Your task to perform on an android device: add a contact in the contacts app Image 0: 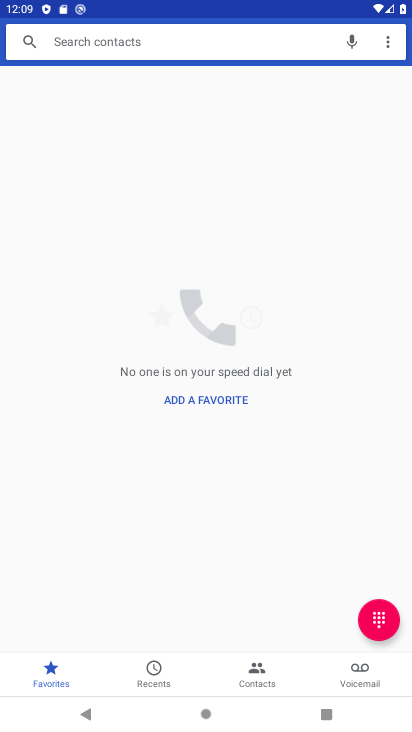
Step 0: press home button
Your task to perform on an android device: add a contact in the contacts app Image 1: 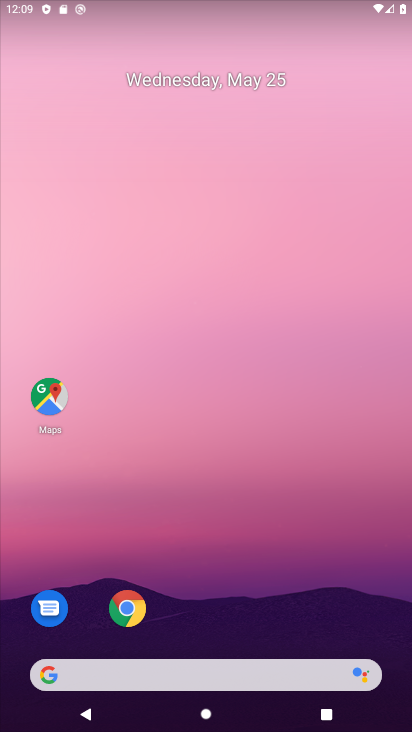
Step 1: drag from (265, 602) to (268, 114)
Your task to perform on an android device: add a contact in the contacts app Image 2: 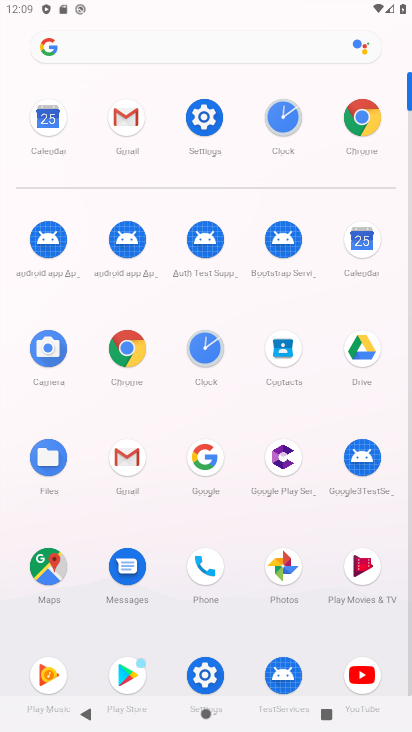
Step 2: click (278, 356)
Your task to perform on an android device: add a contact in the contacts app Image 3: 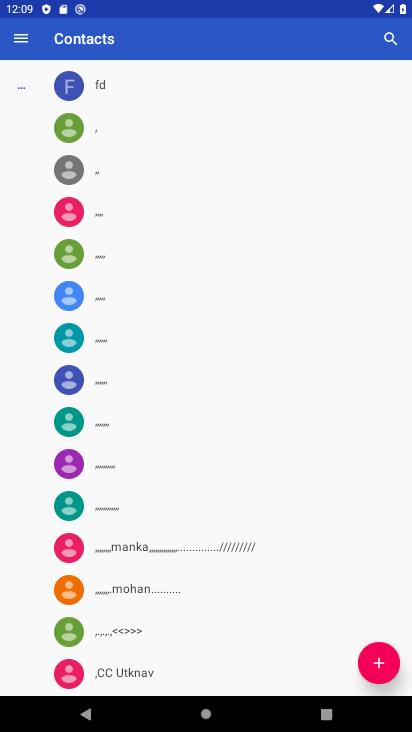
Step 3: click (377, 669)
Your task to perform on an android device: add a contact in the contacts app Image 4: 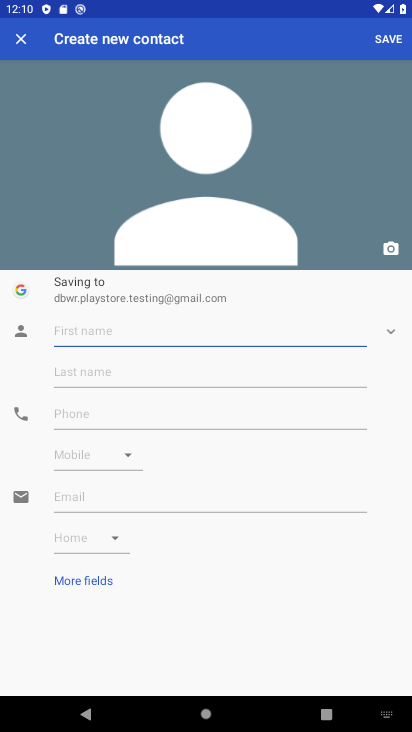
Step 4: type "lkbvk"
Your task to perform on an android device: add a contact in the contacts app Image 5: 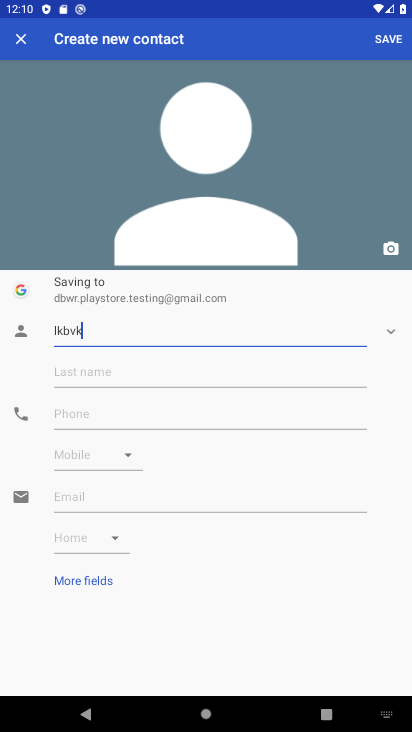
Step 5: click (178, 361)
Your task to perform on an android device: add a contact in the contacts app Image 6: 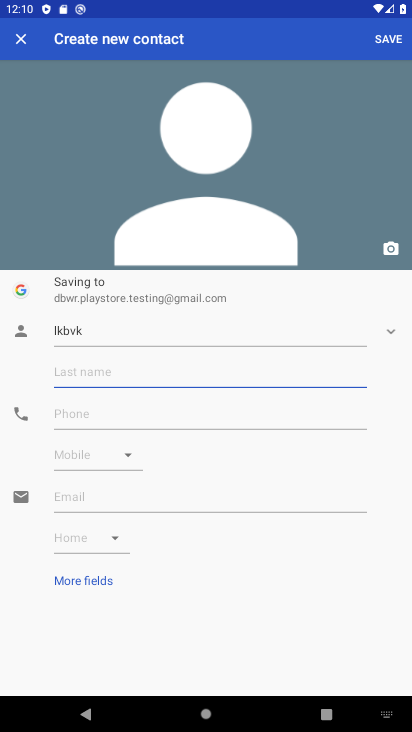
Step 6: type ",m ,"
Your task to perform on an android device: add a contact in the contacts app Image 7: 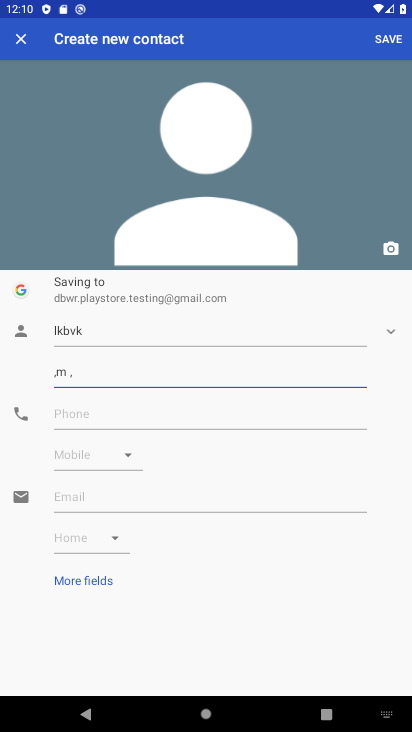
Step 7: click (279, 407)
Your task to perform on an android device: add a contact in the contacts app Image 8: 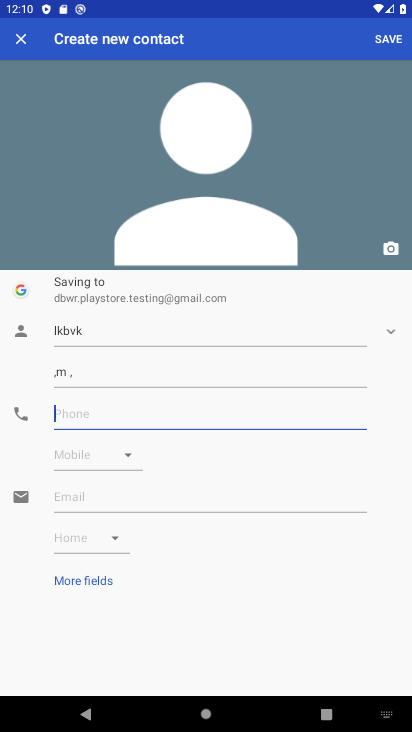
Step 8: type "8768865876"
Your task to perform on an android device: add a contact in the contacts app Image 9: 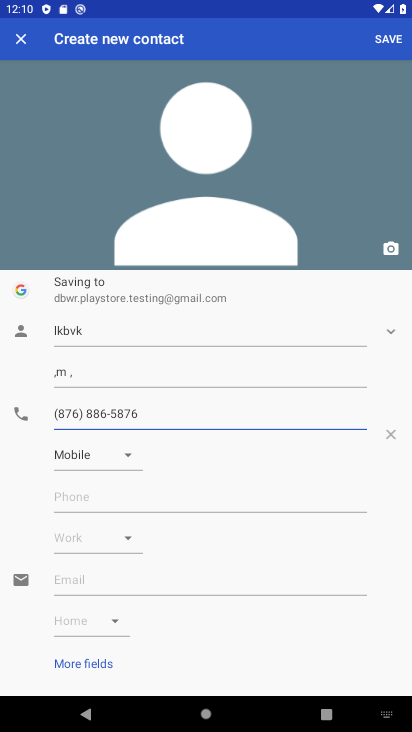
Step 9: click (386, 34)
Your task to perform on an android device: add a contact in the contacts app Image 10: 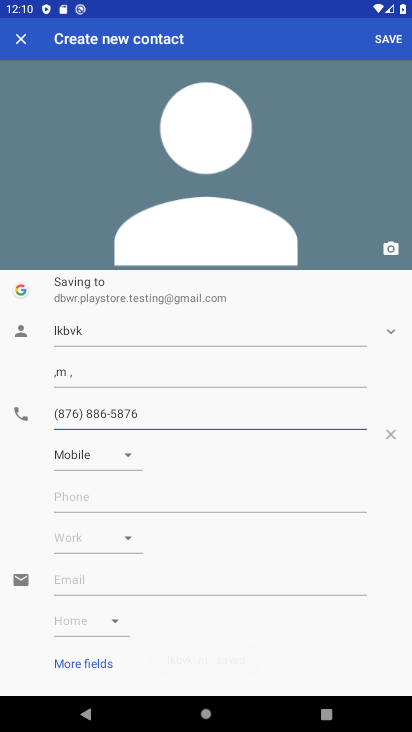
Step 10: task complete